Your task to perform on an android device: Open Google Chrome Image 0: 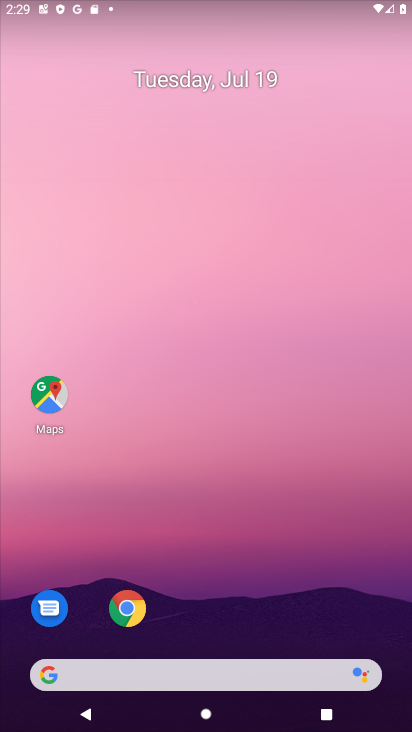
Step 0: drag from (264, 607) to (211, 71)
Your task to perform on an android device: Open Google Chrome Image 1: 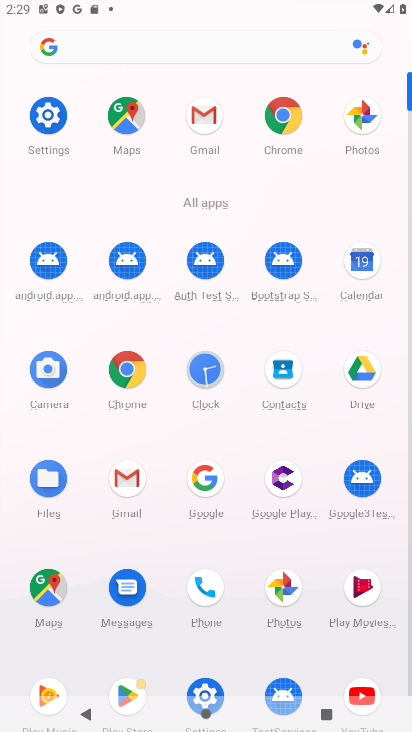
Step 1: click (286, 113)
Your task to perform on an android device: Open Google Chrome Image 2: 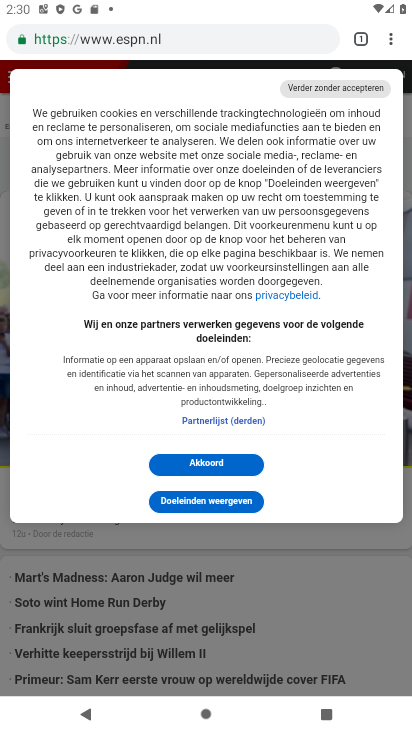
Step 2: task complete